Your task to perform on an android device: change notification settings in the gmail app Image 0: 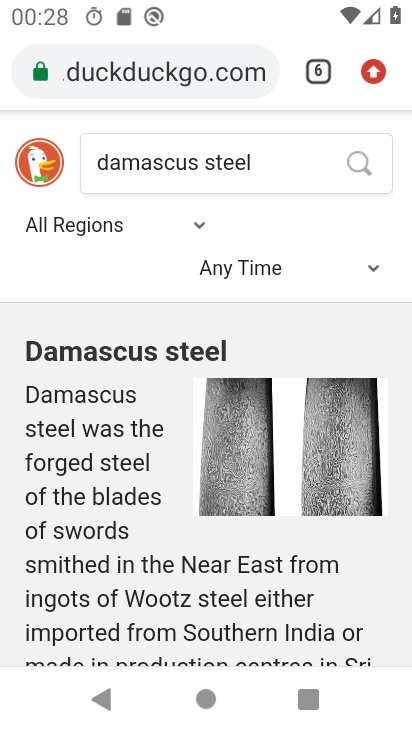
Step 0: press home button
Your task to perform on an android device: change notification settings in the gmail app Image 1: 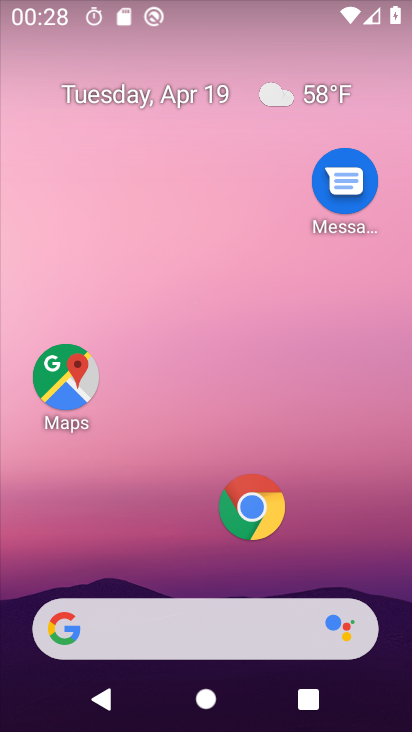
Step 1: drag from (170, 556) to (278, 0)
Your task to perform on an android device: change notification settings in the gmail app Image 2: 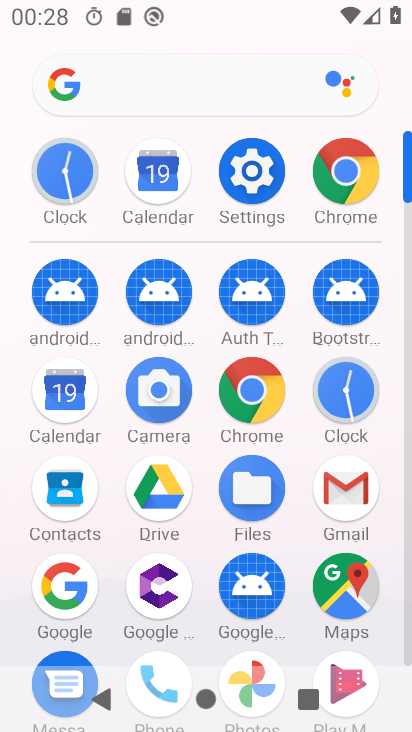
Step 2: click (336, 494)
Your task to perform on an android device: change notification settings in the gmail app Image 3: 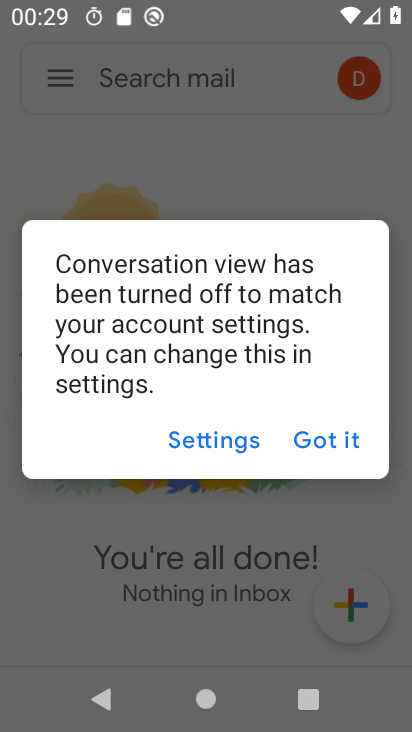
Step 3: click (314, 440)
Your task to perform on an android device: change notification settings in the gmail app Image 4: 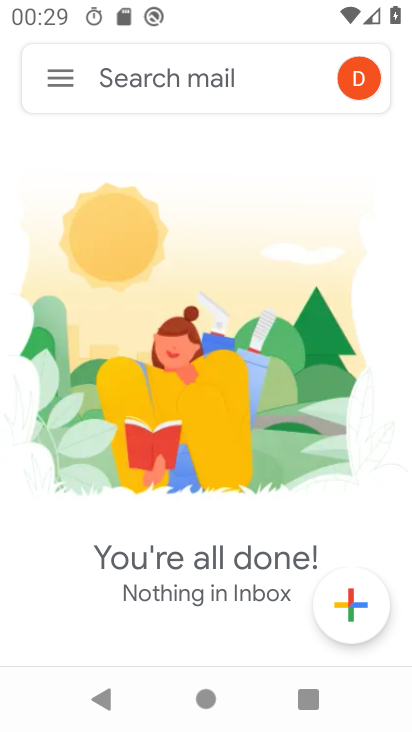
Step 4: click (61, 70)
Your task to perform on an android device: change notification settings in the gmail app Image 5: 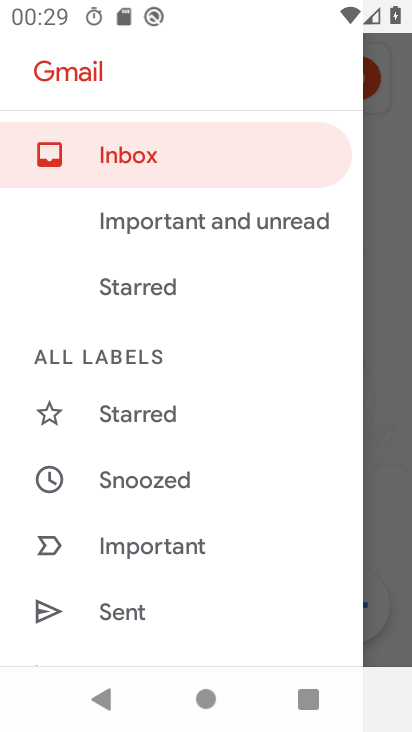
Step 5: drag from (140, 520) to (190, 171)
Your task to perform on an android device: change notification settings in the gmail app Image 6: 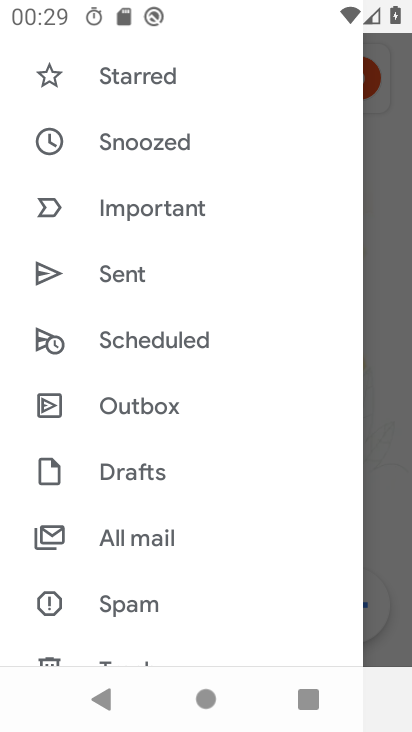
Step 6: drag from (125, 564) to (259, 42)
Your task to perform on an android device: change notification settings in the gmail app Image 7: 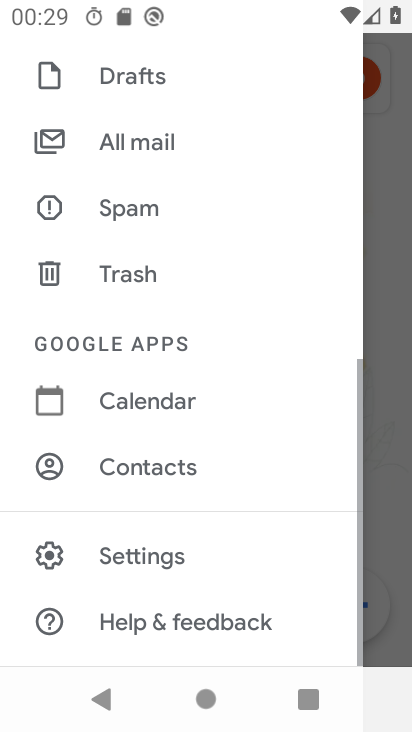
Step 7: click (135, 563)
Your task to perform on an android device: change notification settings in the gmail app Image 8: 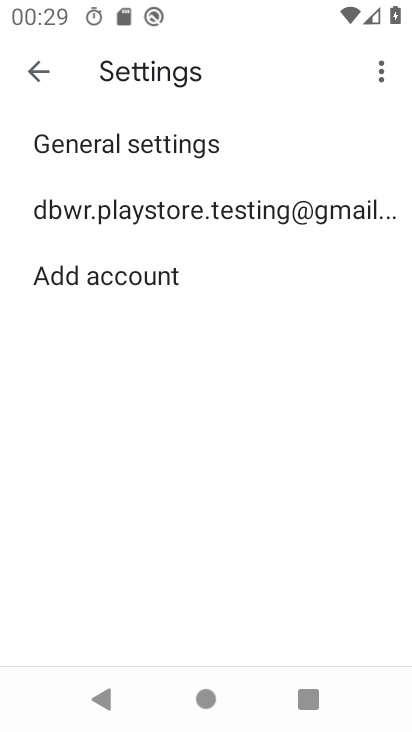
Step 8: click (150, 141)
Your task to perform on an android device: change notification settings in the gmail app Image 9: 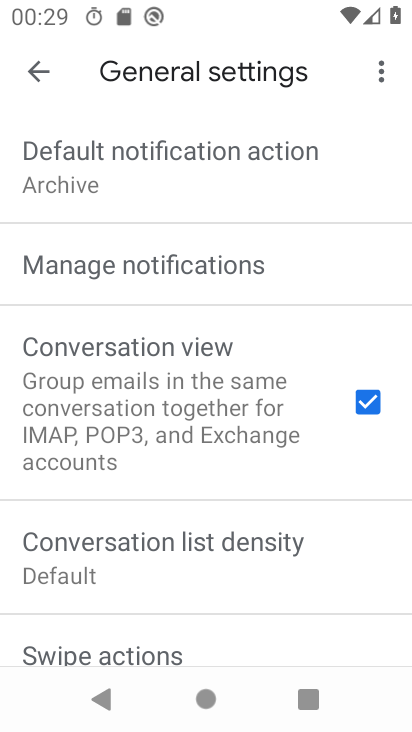
Step 9: click (193, 270)
Your task to perform on an android device: change notification settings in the gmail app Image 10: 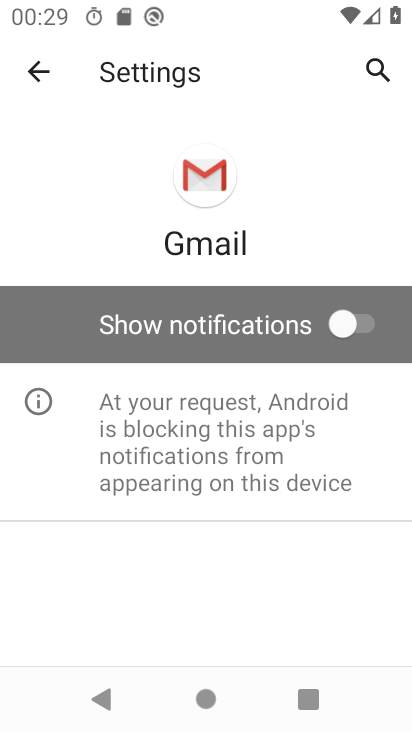
Step 10: click (361, 330)
Your task to perform on an android device: change notification settings in the gmail app Image 11: 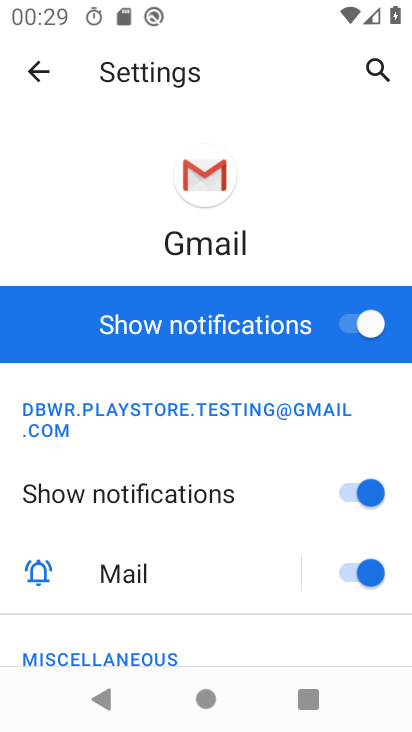
Step 11: task complete